Your task to perform on an android device: turn on the 12-hour format for clock Image 0: 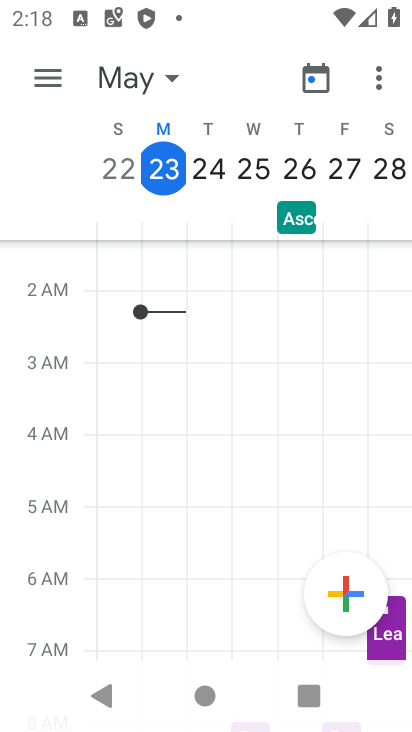
Step 0: press home button
Your task to perform on an android device: turn on the 12-hour format for clock Image 1: 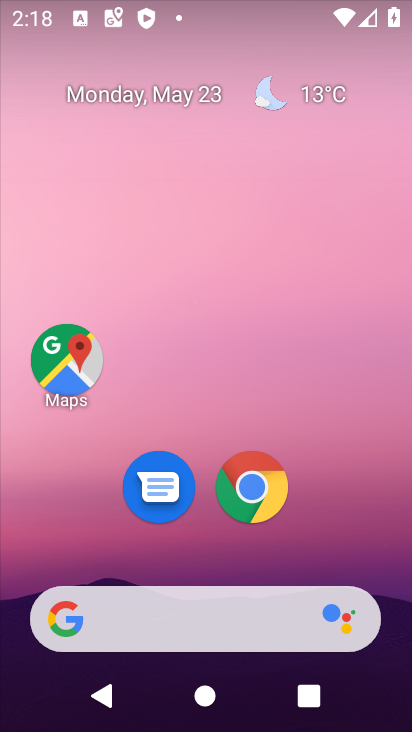
Step 1: drag from (396, 615) to (368, 38)
Your task to perform on an android device: turn on the 12-hour format for clock Image 2: 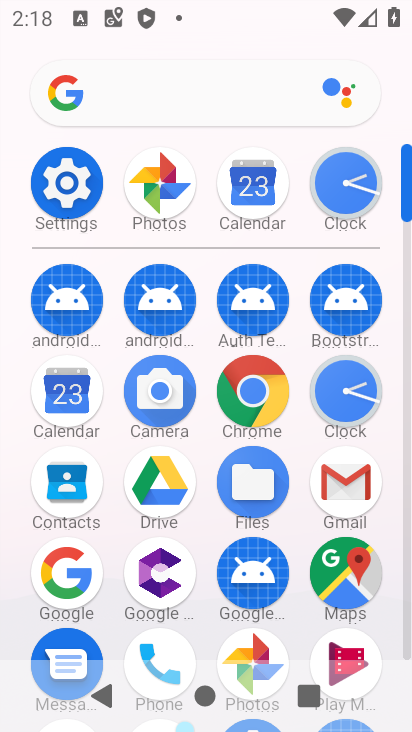
Step 2: click (406, 642)
Your task to perform on an android device: turn on the 12-hour format for clock Image 3: 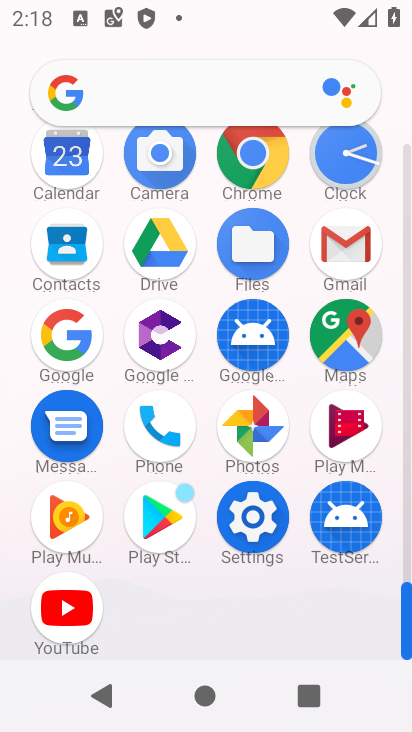
Step 3: click (342, 150)
Your task to perform on an android device: turn on the 12-hour format for clock Image 4: 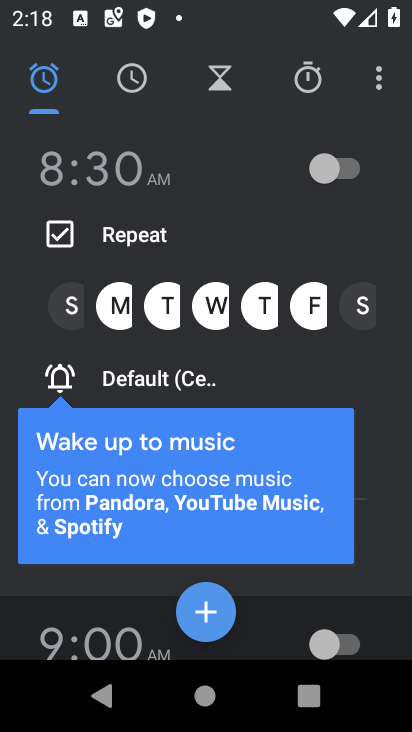
Step 4: click (374, 84)
Your task to perform on an android device: turn on the 12-hour format for clock Image 5: 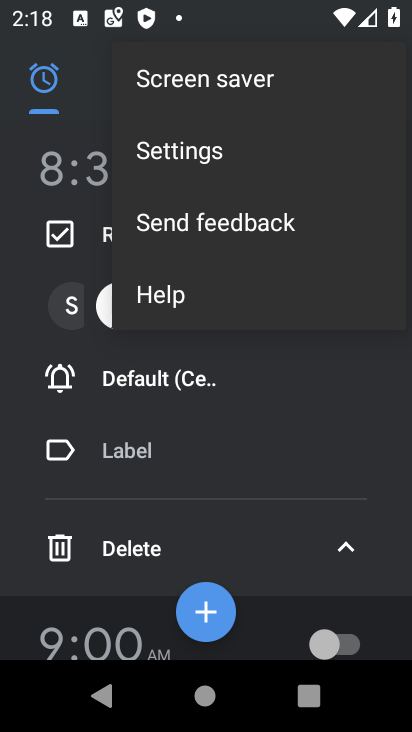
Step 5: click (175, 147)
Your task to perform on an android device: turn on the 12-hour format for clock Image 6: 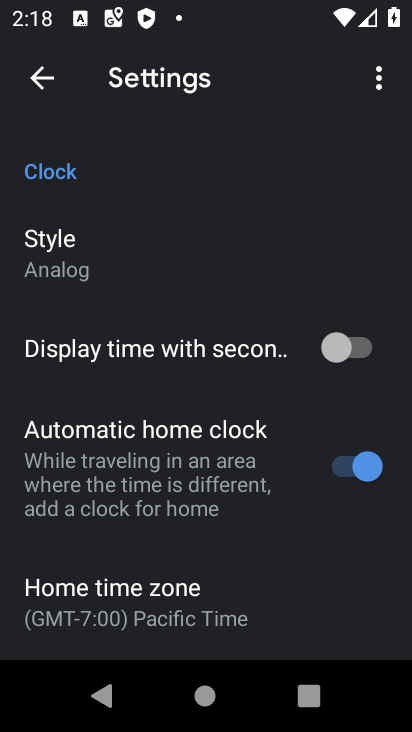
Step 6: drag from (275, 540) to (257, 97)
Your task to perform on an android device: turn on the 12-hour format for clock Image 7: 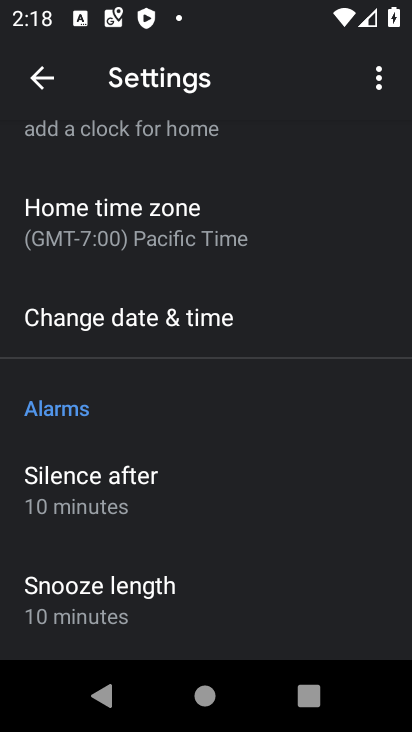
Step 7: click (147, 321)
Your task to perform on an android device: turn on the 12-hour format for clock Image 8: 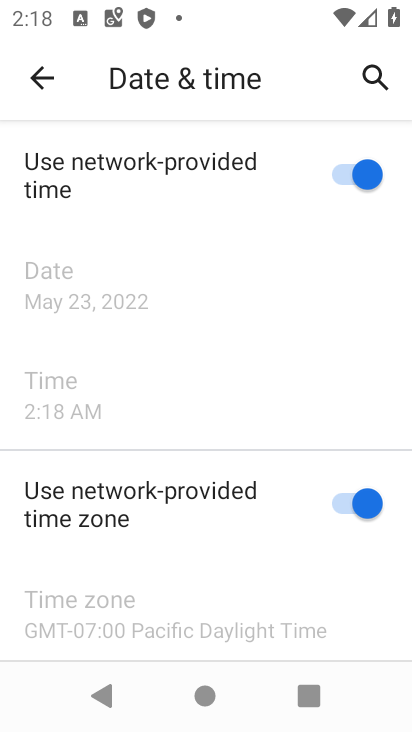
Step 8: task complete